Your task to perform on an android device: Do I have any events today? Image 0: 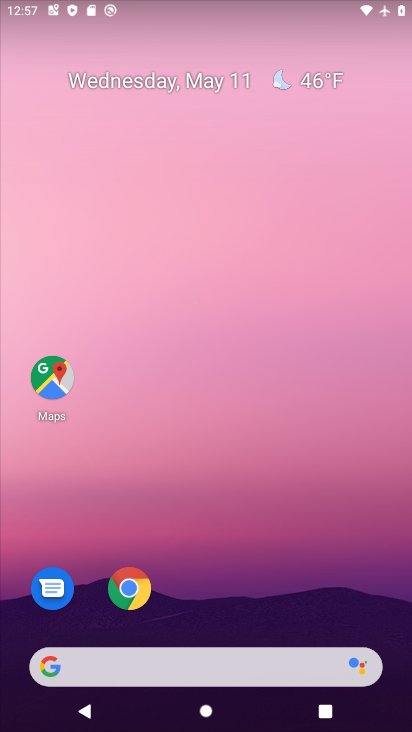
Step 0: drag from (223, 596) to (195, 34)
Your task to perform on an android device: Do I have any events today? Image 1: 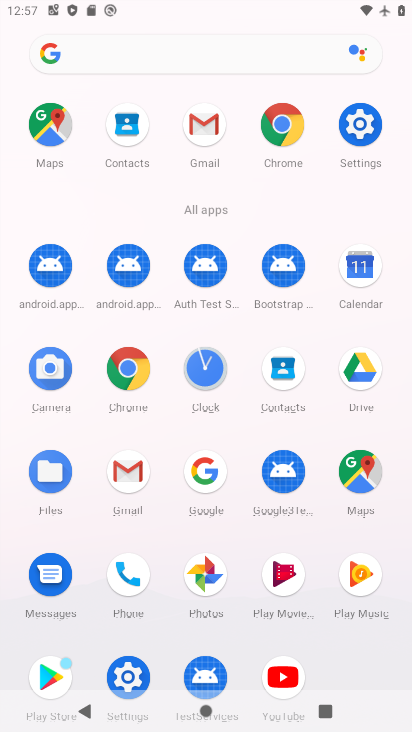
Step 1: click (362, 279)
Your task to perform on an android device: Do I have any events today? Image 2: 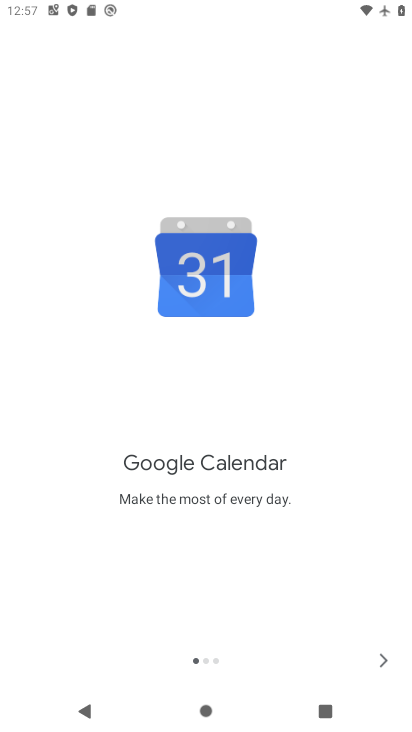
Step 2: click (374, 664)
Your task to perform on an android device: Do I have any events today? Image 3: 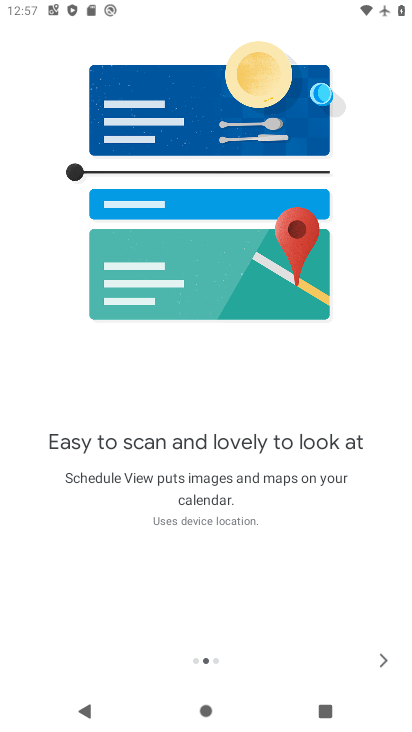
Step 3: click (374, 664)
Your task to perform on an android device: Do I have any events today? Image 4: 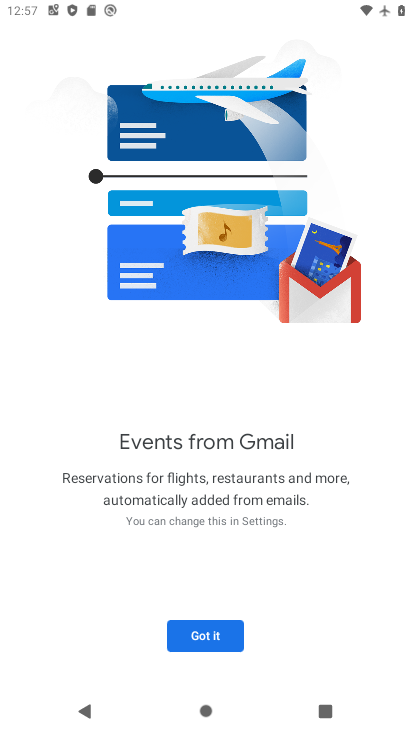
Step 4: click (232, 636)
Your task to perform on an android device: Do I have any events today? Image 5: 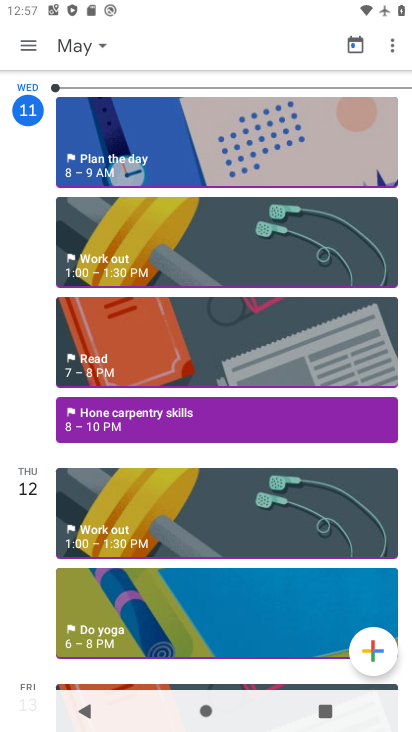
Step 5: click (79, 55)
Your task to perform on an android device: Do I have any events today? Image 6: 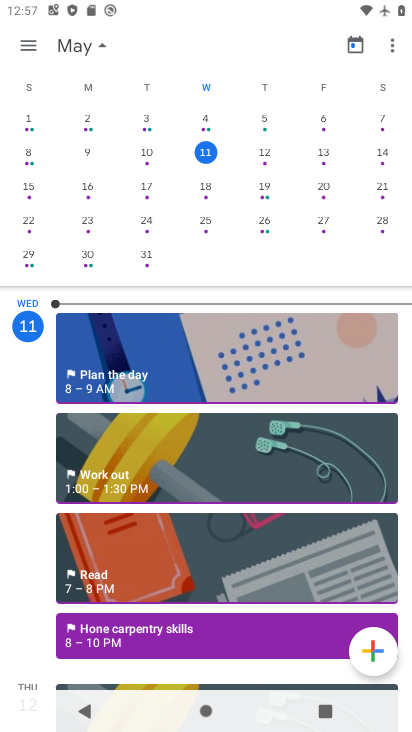
Step 6: click (206, 153)
Your task to perform on an android device: Do I have any events today? Image 7: 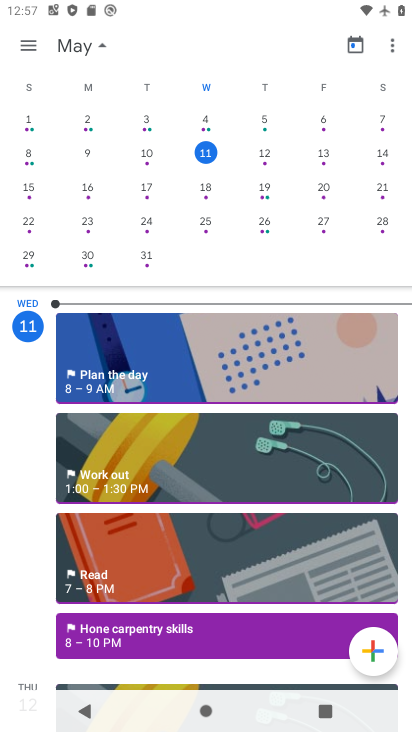
Step 7: drag from (284, 557) to (315, 359)
Your task to perform on an android device: Do I have any events today? Image 8: 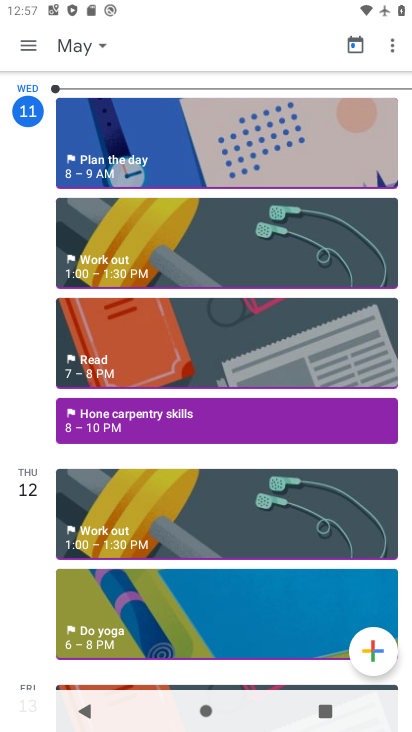
Step 8: drag from (316, 358) to (301, 586)
Your task to perform on an android device: Do I have any events today? Image 9: 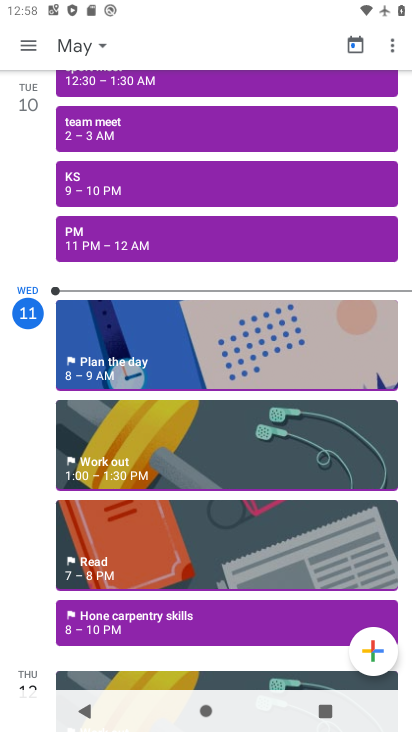
Step 9: click (299, 262)
Your task to perform on an android device: Do I have any events today? Image 10: 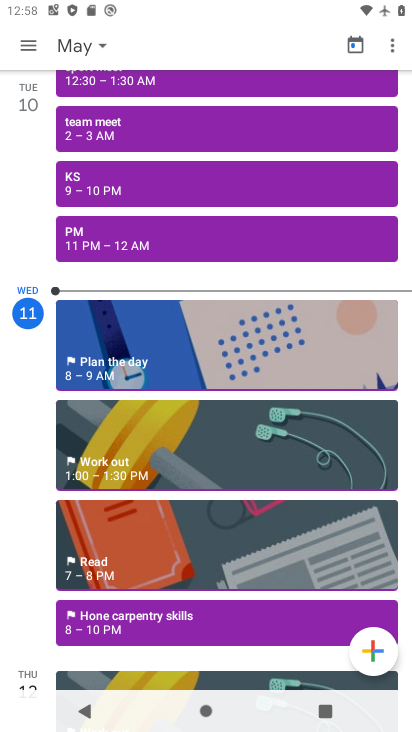
Step 10: click (90, 41)
Your task to perform on an android device: Do I have any events today? Image 11: 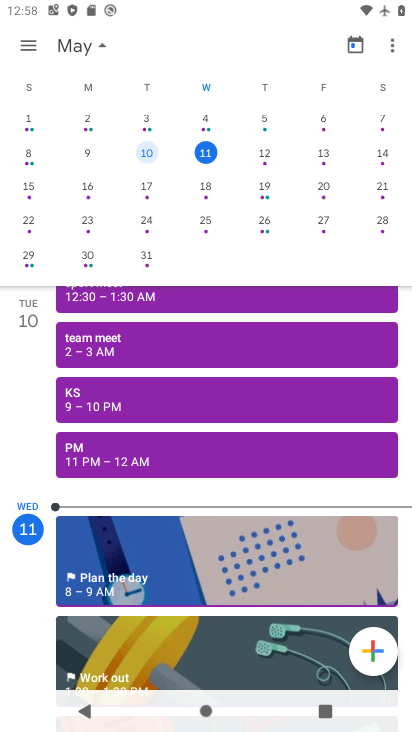
Step 11: click (149, 159)
Your task to perform on an android device: Do I have any events today? Image 12: 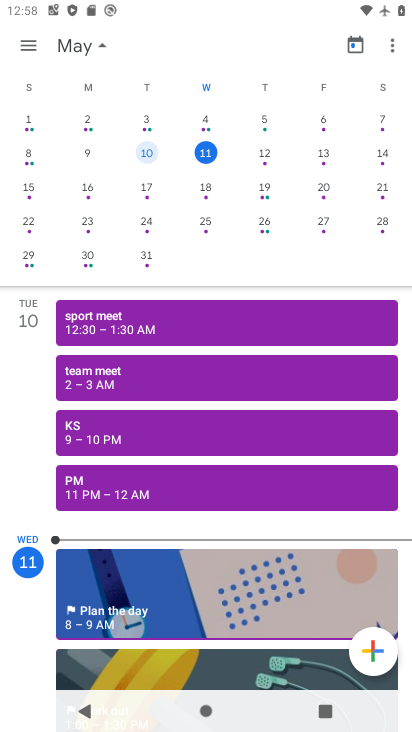
Step 12: task complete